Your task to perform on an android device: change notification settings in the gmail app Image 0: 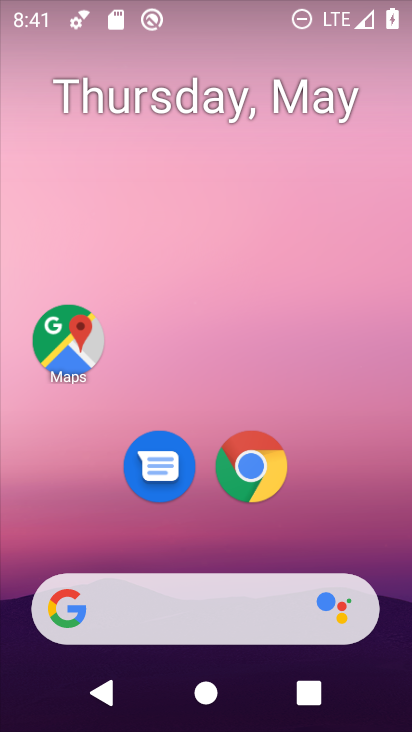
Step 0: drag from (375, 532) to (364, 2)
Your task to perform on an android device: change notification settings in the gmail app Image 1: 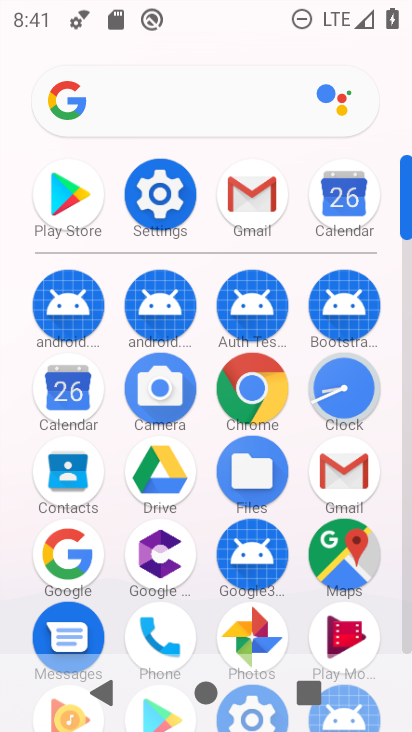
Step 1: click (246, 204)
Your task to perform on an android device: change notification settings in the gmail app Image 2: 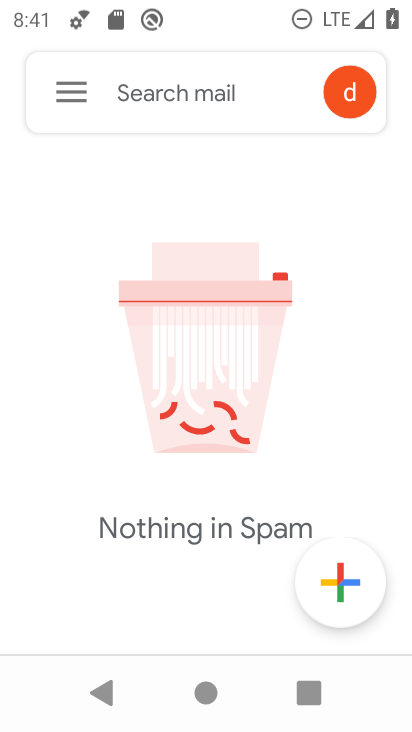
Step 2: click (60, 94)
Your task to perform on an android device: change notification settings in the gmail app Image 3: 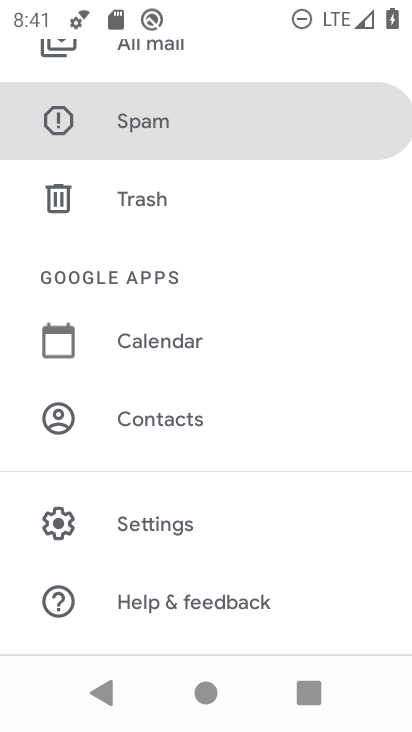
Step 3: click (145, 517)
Your task to perform on an android device: change notification settings in the gmail app Image 4: 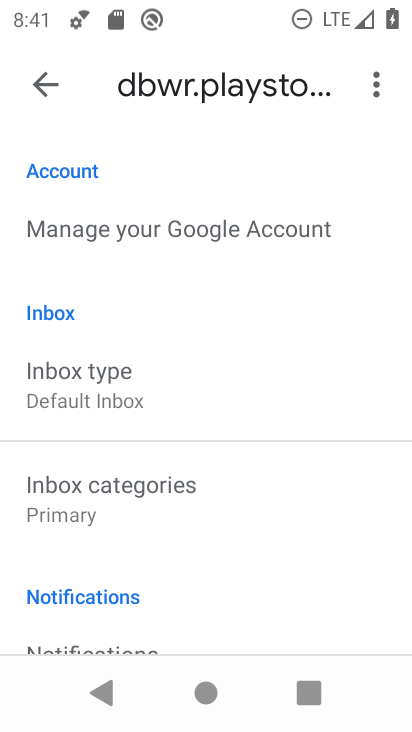
Step 4: click (59, 79)
Your task to perform on an android device: change notification settings in the gmail app Image 5: 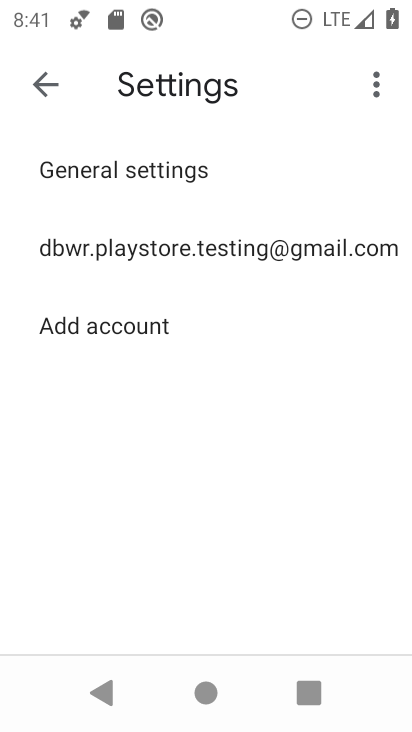
Step 5: click (122, 176)
Your task to perform on an android device: change notification settings in the gmail app Image 6: 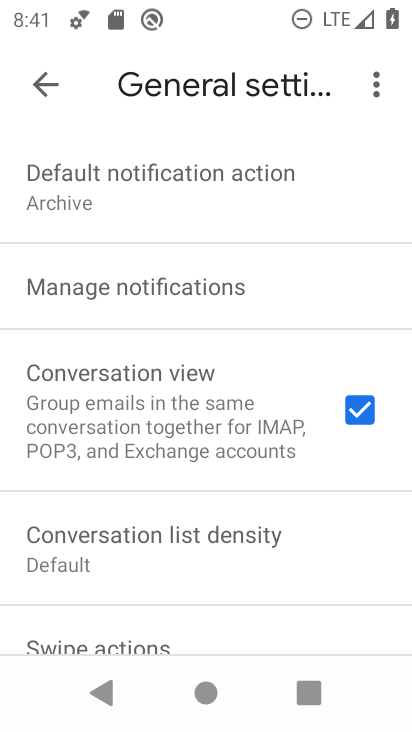
Step 6: click (109, 294)
Your task to perform on an android device: change notification settings in the gmail app Image 7: 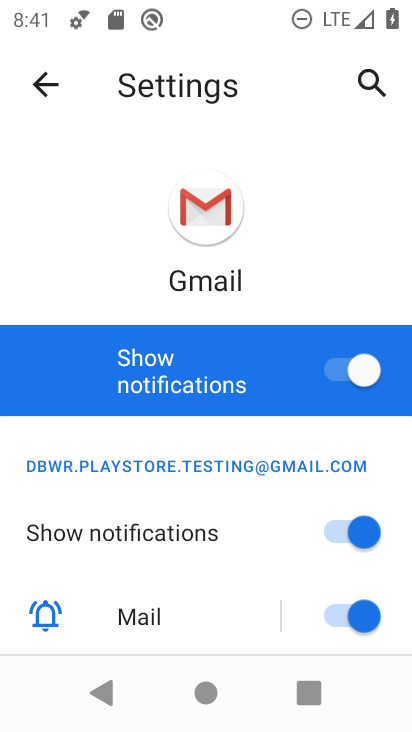
Step 7: click (355, 373)
Your task to perform on an android device: change notification settings in the gmail app Image 8: 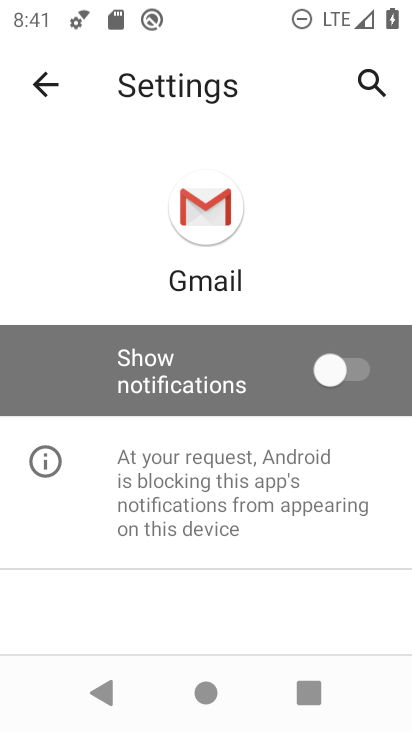
Step 8: task complete